Your task to perform on an android device: toggle wifi Image 0: 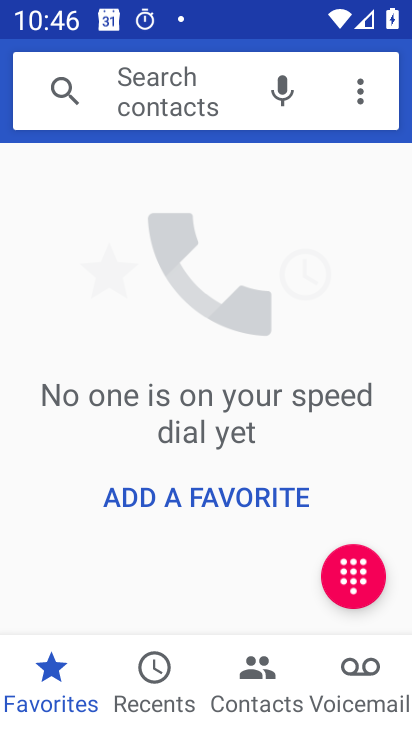
Step 0: press home button
Your task to perform on an android device: toggle wifi Image 1: 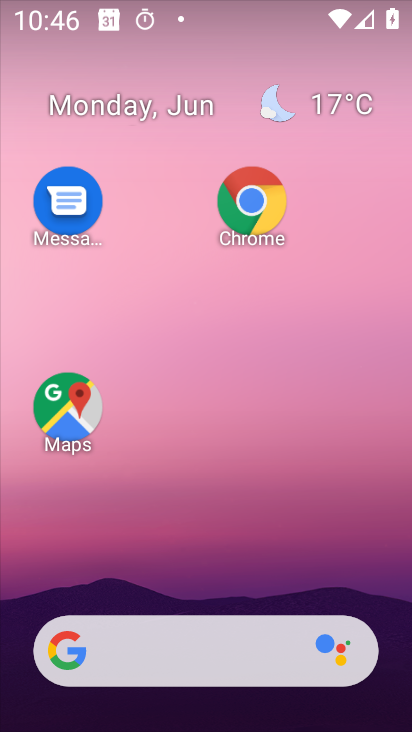
Step 1: drag from (215, 601) to (159, 77)
Your task to perform on an android device: toggle wifi Image 2: 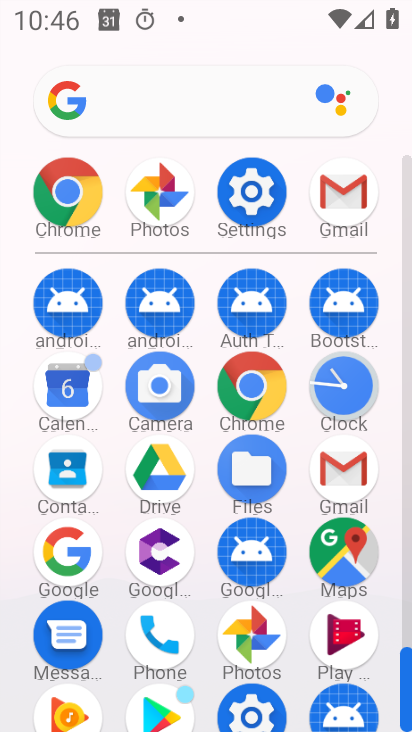
Step 2: click (234, 168)
Your task to perform on an android device: toggle wifi Image 3: 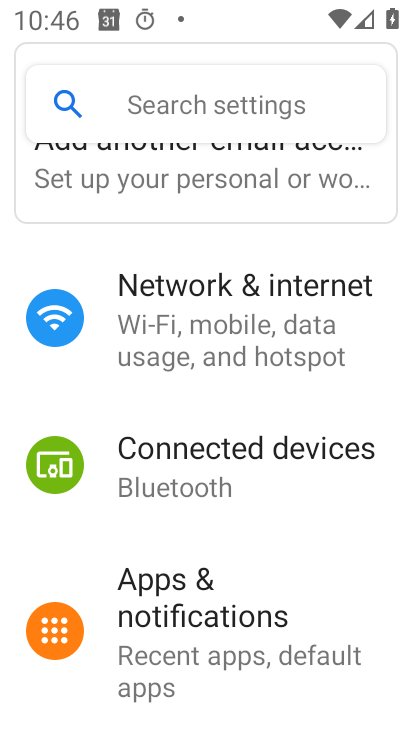
Step 3: click (224, 286)
Your task to perform on an android device: toggle wifi Image 4: 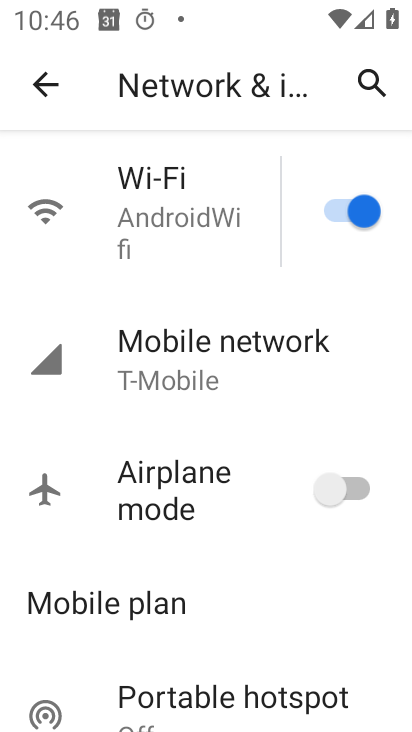
Step 4: click (225, 243)
Your task to perform on an android device: toggle wifi Image 5: 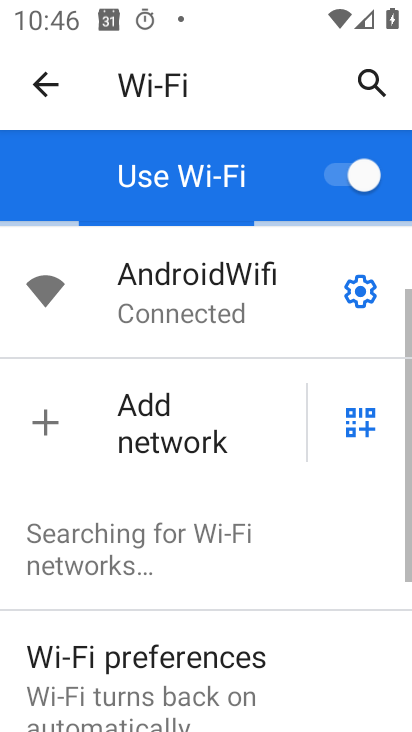
Step 5: click (336, 195)
Your task to perform on an android device: toggle wifi Image 6: 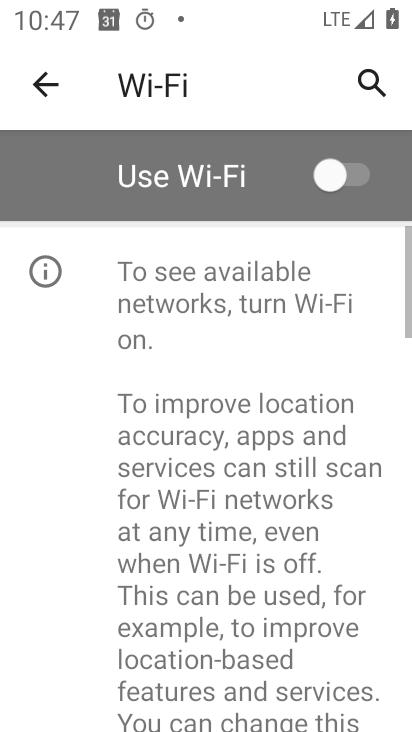
Step 6: task complete